Your task to perform on an android device: toggle translation in the chrome app Image 0: 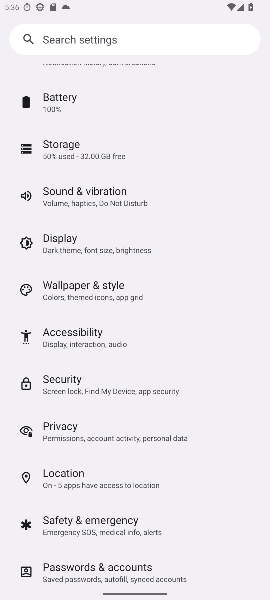
Step 0: press home button
Your task to perform on an android device: toggle translation in the chrome app Image 1: 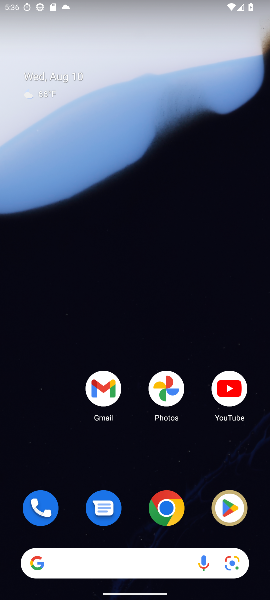
Step 1: click (167, 516)
Your task to perform on an android device: toggle translation in the chrome app Image 2: 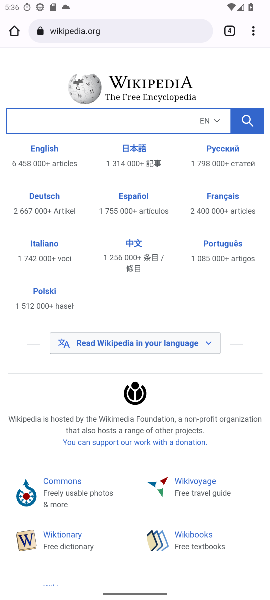
Step 2: drag from (249, 35) to (156, 389)
Your task to perform on an android device: toggle translation in the chrome app Image 3: 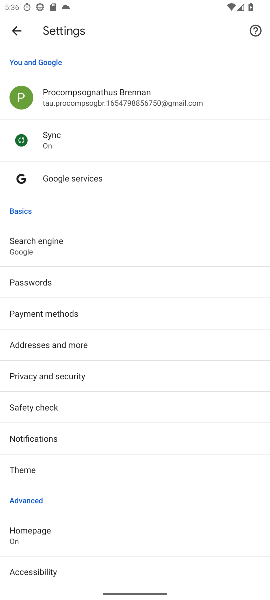
Step 3: drag from (71, 506) to (88, 236)
Your task to perform on an android device: toggle translation in the chrome app Image 4: 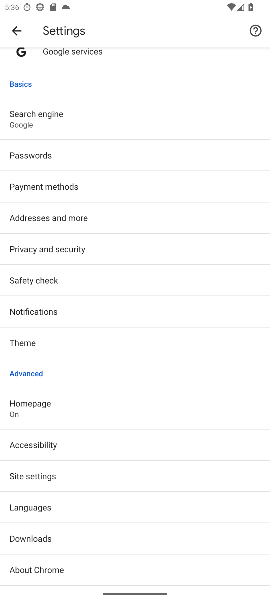
Step 4: click (60, 508)
Your task to perform on an android device: toggle translation in the chrome app Image 5: 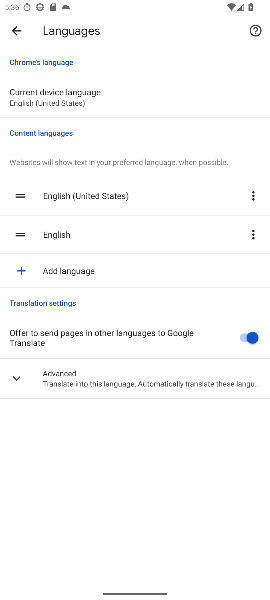
Step 5: click (249, 334)
Your task to perform on an android device: toggle translation in the chrome app Image 6: 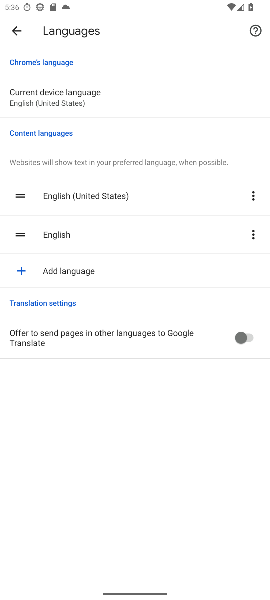
Step 6: task complete